Your task to perform on an android device: Open sound settings Image 0: 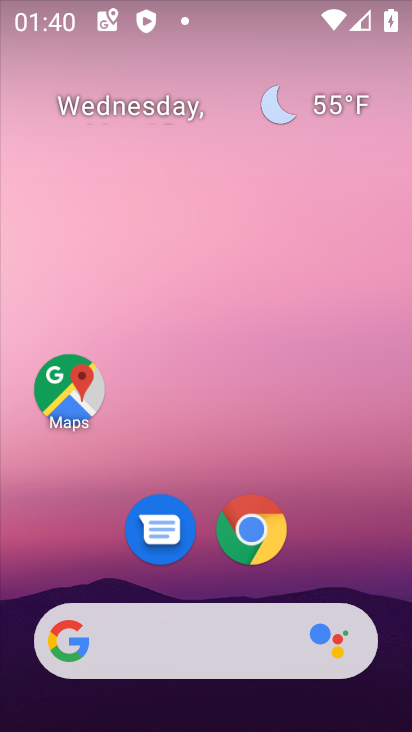
Step 0: drag from (197, 719) to (195, 177)
Your task to perform on an android device: Open sound settings Image 1: 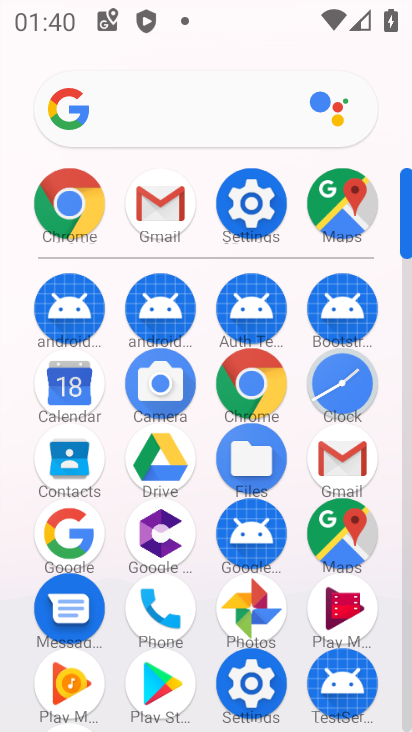
Step 1: click (248, 197)
Your task to perform on an android device: Open sound settings Image 2: 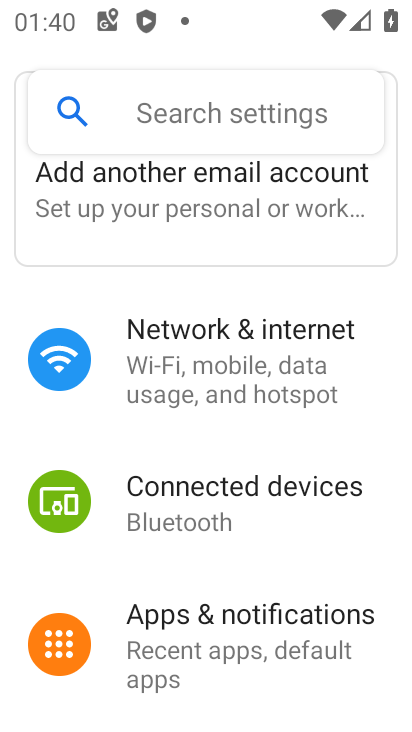
Step 2: drag from (201, 697) to (200, 303)
Your task to perform on an android device: Open sound settings Image 3: 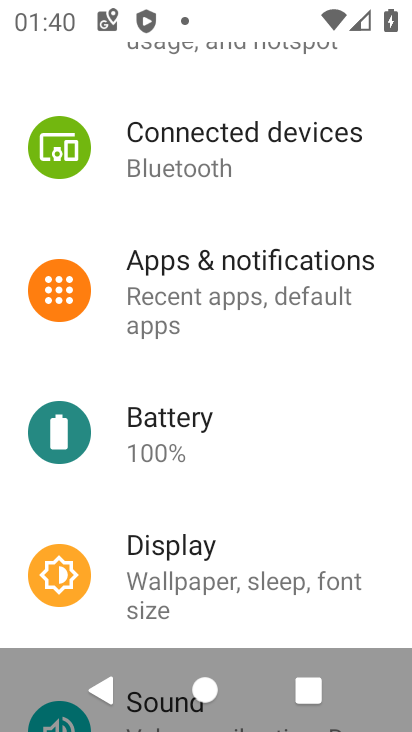
Step 3: drag from (213, 638) to (215, 283)
Your task to perform on an android device: Open sound settings Image 4: 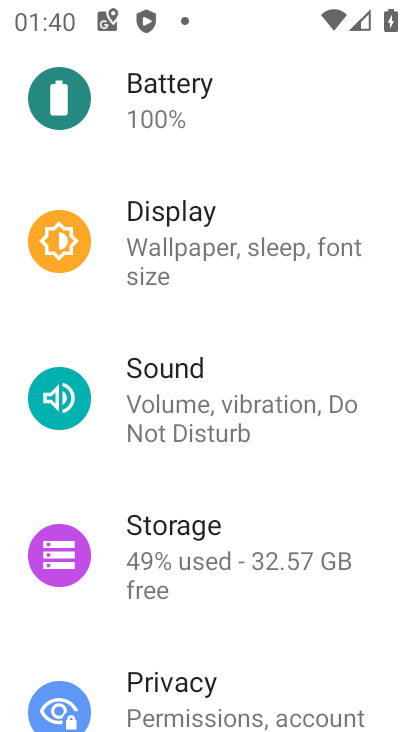
Step 4: click (174, 387)
Your task to perform on an android device: Open sound settings Image 5: 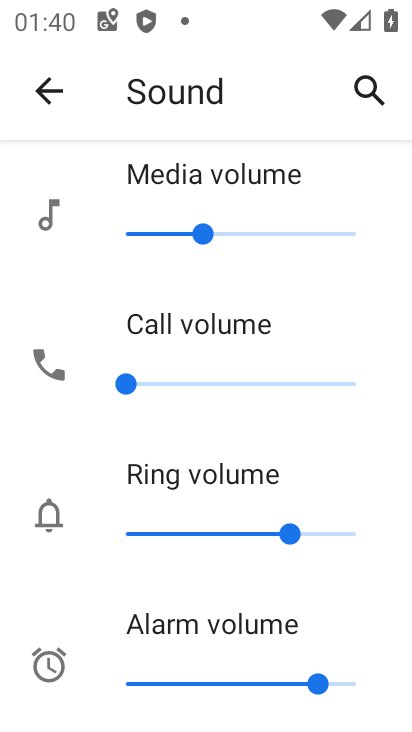
Step 5: task complete